Your task to perform on an android device: check battery use Image 0: 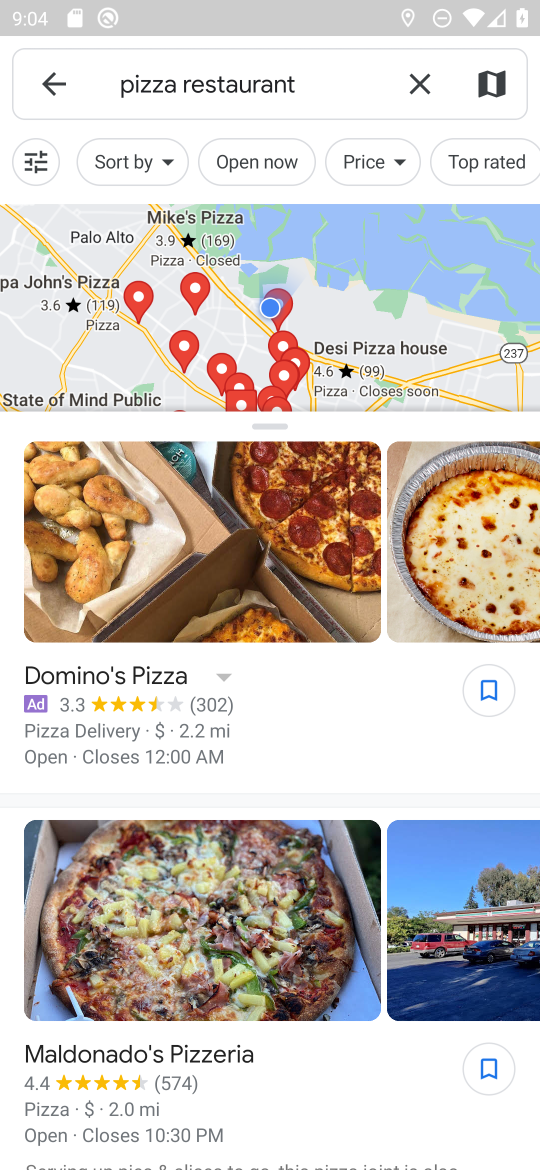
Step 0: click (416, 82)
Your task to perform on an android device: check battery use Image 1: 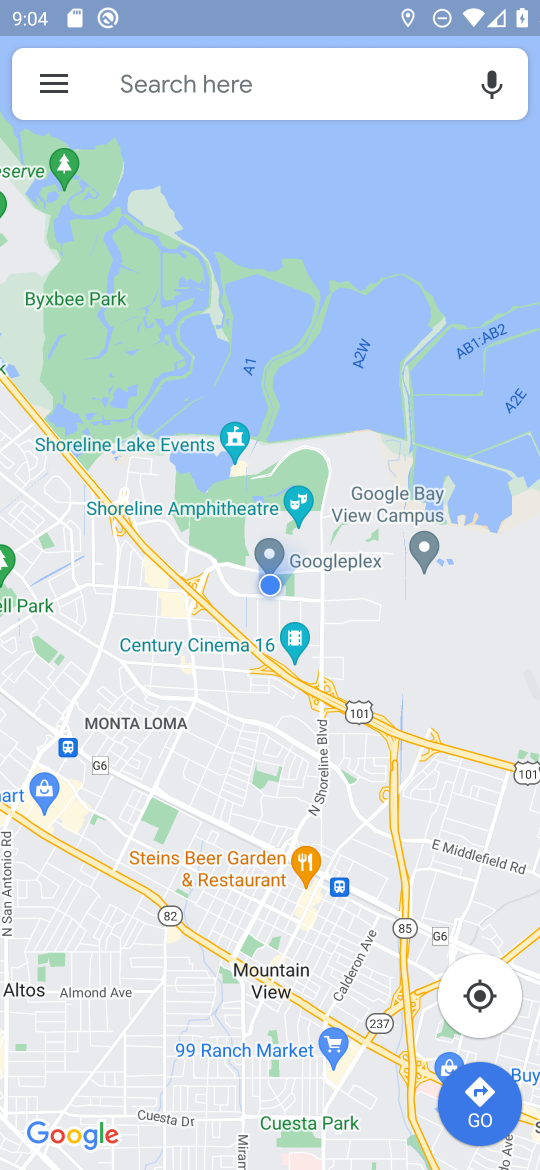
Step 1: press home button
Your task to perform on an android device: check battery use Image 2: 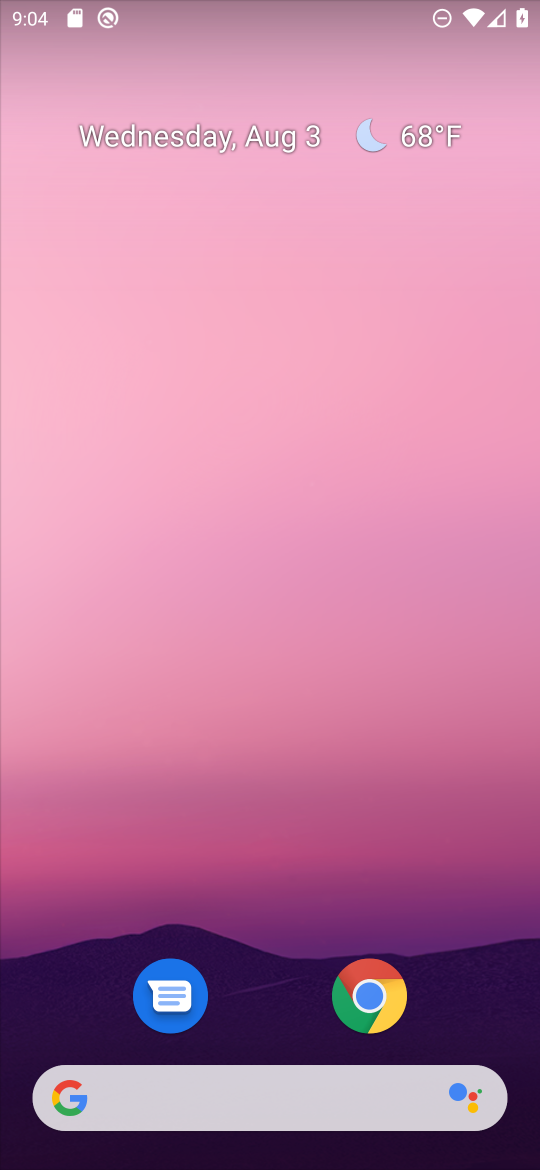
Step 2: drag from (287, 907) to (294, 0)
Your task to perform on an android device: check battery use Image 3: 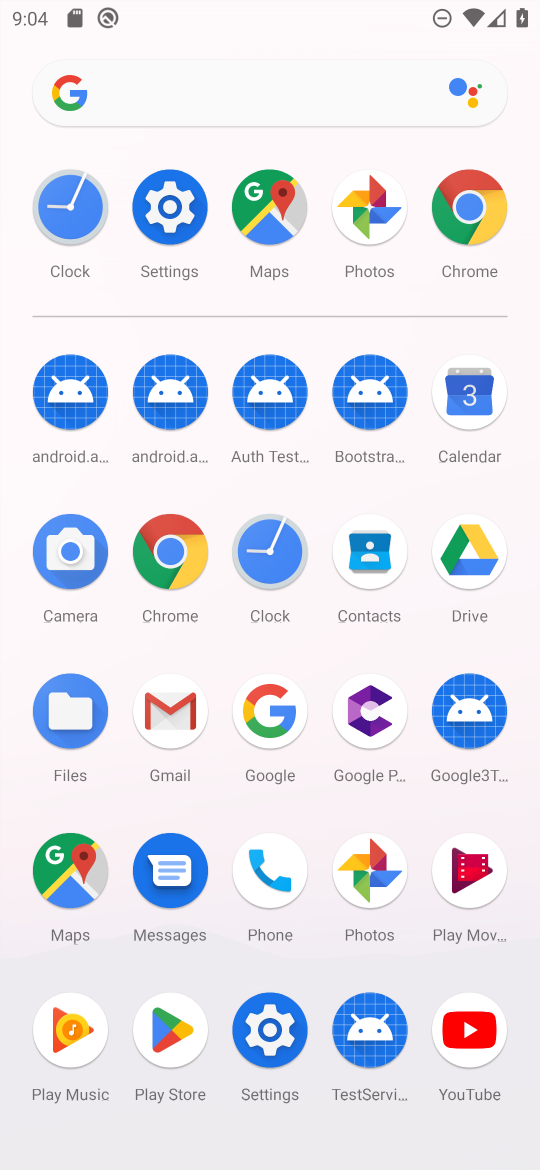
Step 3: click (173, 204)
Your task to perform on an android device: check battery use Image 4: 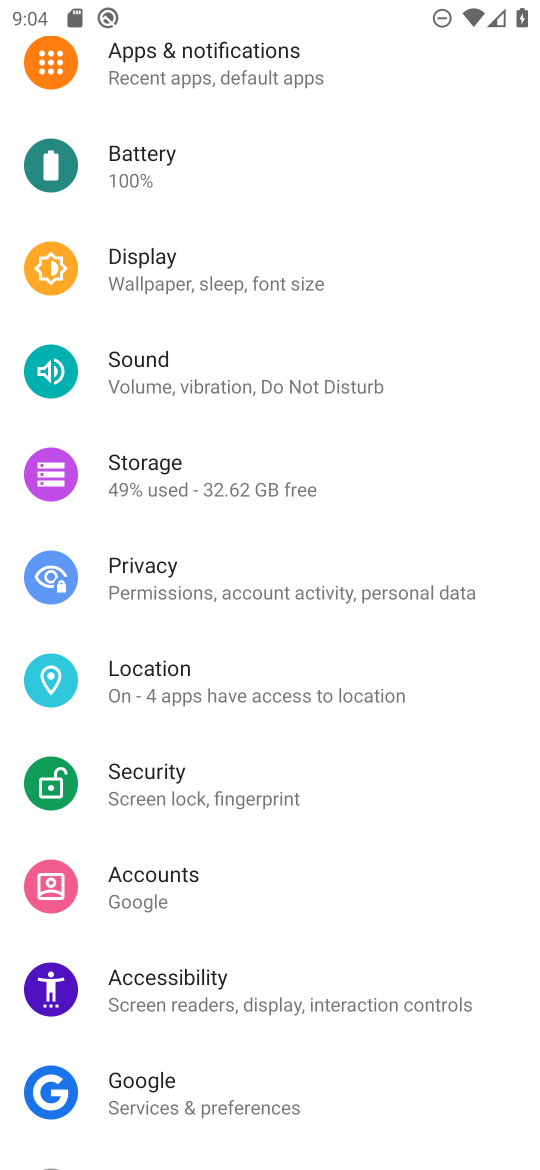
Step 4: click (144, 142)
Your task to perform on an android device: check battery use Image 5: 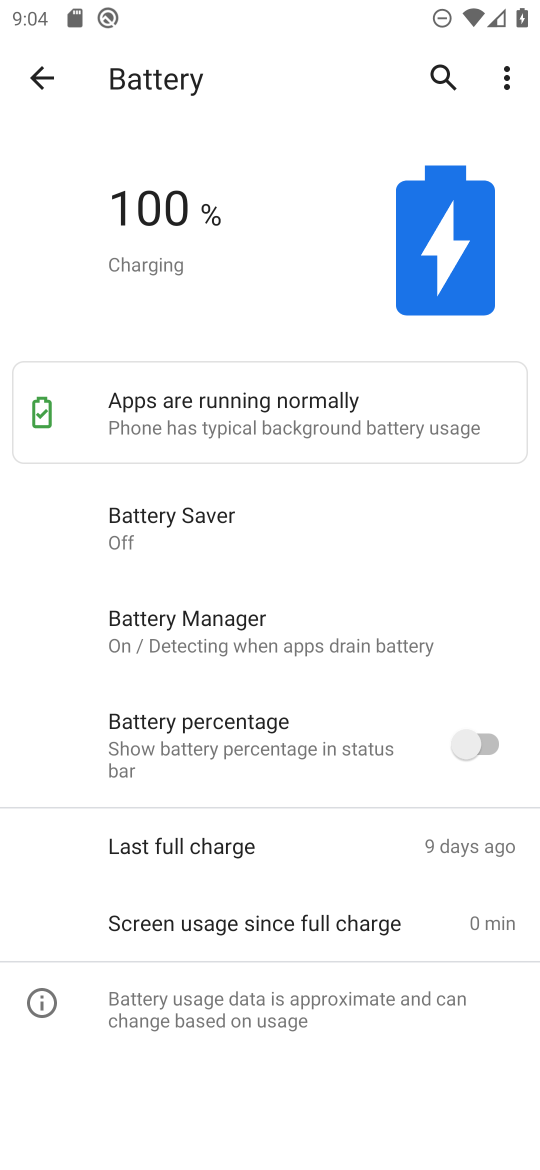
Step 5: click (503, 74)
Your task to perform on an android device: check battery use Image 6: 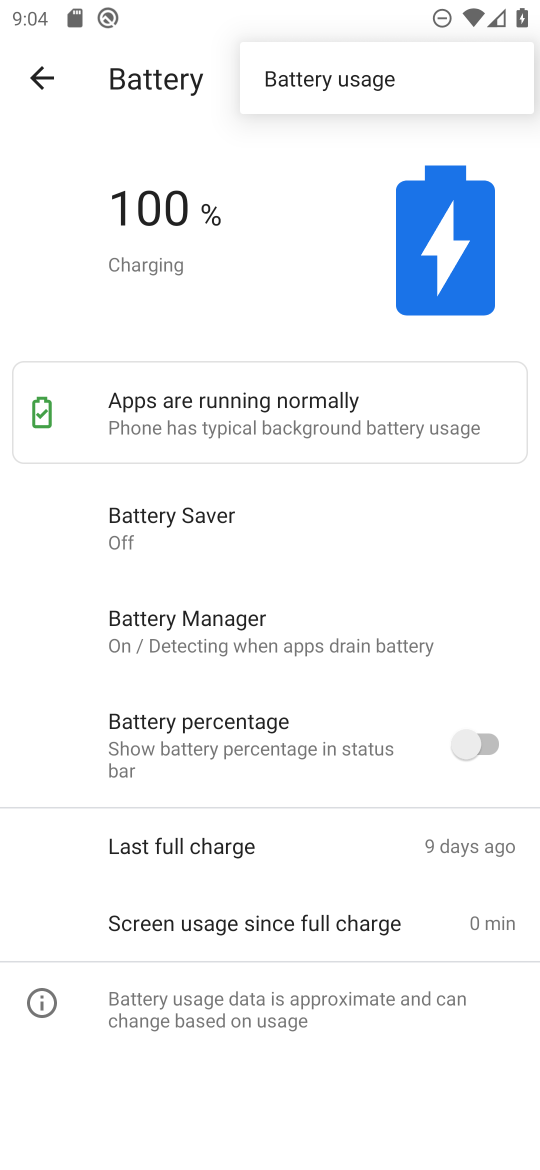
Step 6: click (353, 73)
Your task to perform on an android device: check battery use Image 7: 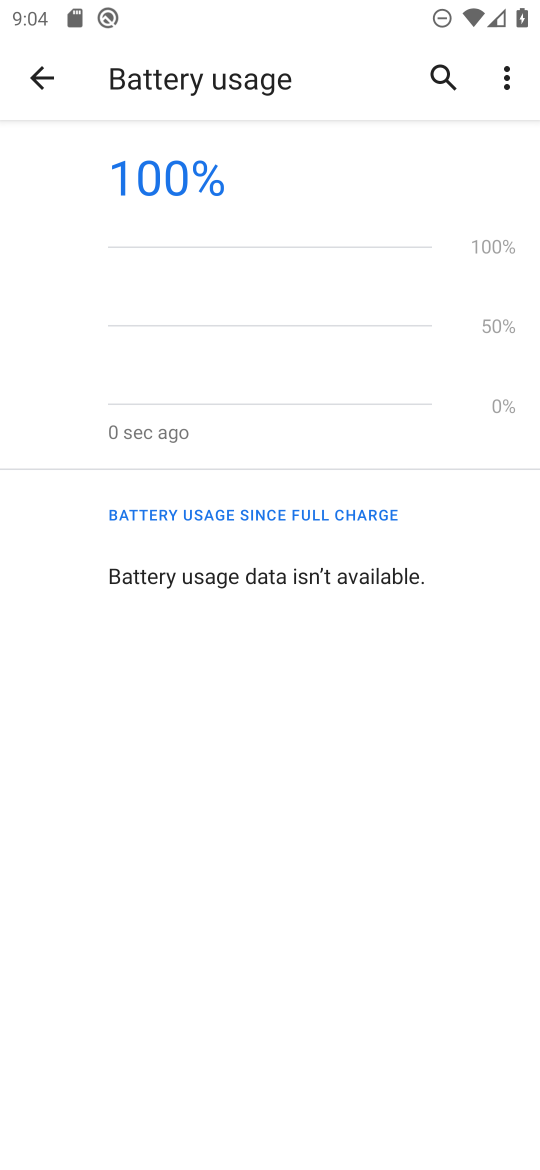
Step 7: task complete